Your task to perform on an android device: Open calendar and show me the fourth week of next month Image 0: 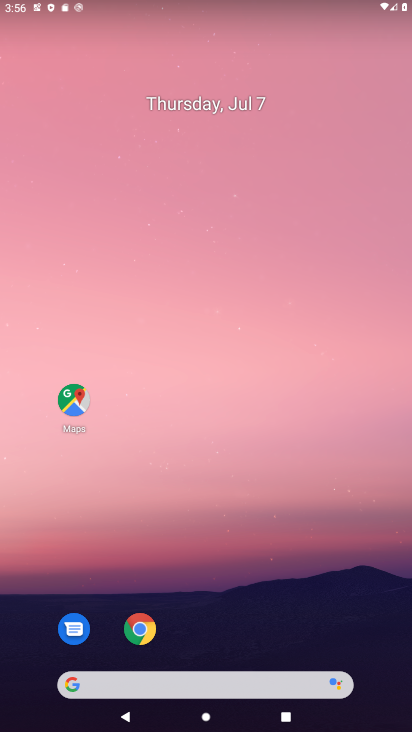
Step 0: drag from (196, 649) to (203, 249)
Your task to perform on an android device: Open calendar and show me the fourth week of next month Image 1: 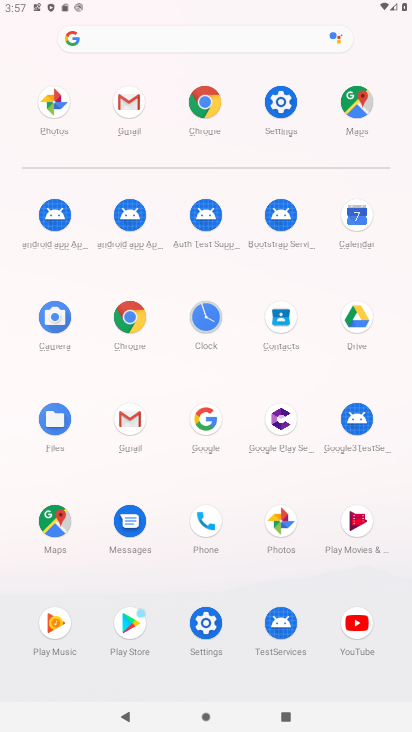
Step 1: click (355, 201)
Your task to perform on an android device: Open calendar and show me the fourth week of next month Image 2: 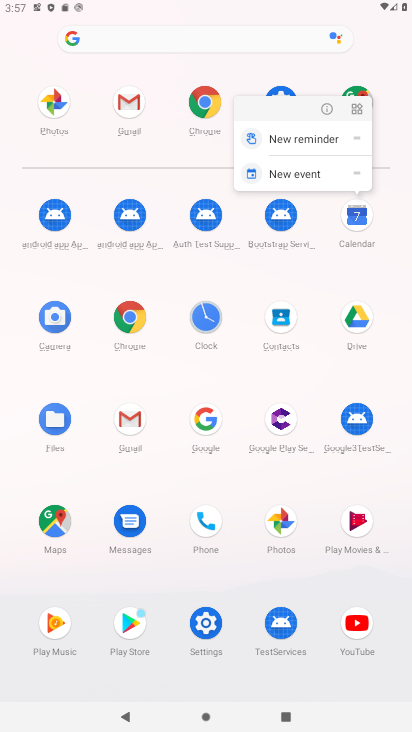
Step 2: click (355, 201)
Your task to perform on an android device: Open calendar and show me the fourth week of next month Image 3: 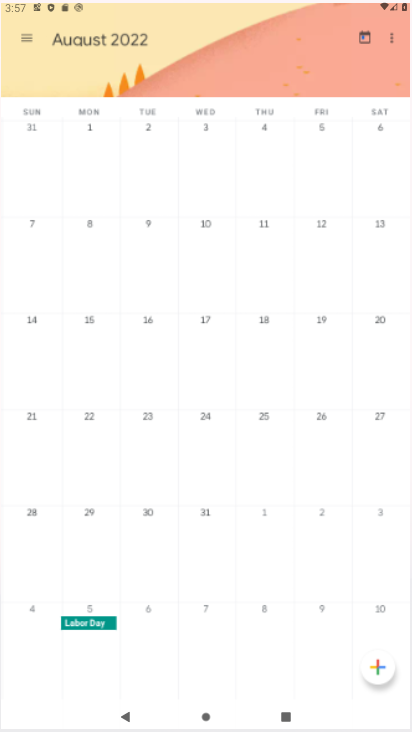
Step 3: click (355, 217)
Your task to perform on an android device: Open calendar and show me the fourth week of next month Image 4: 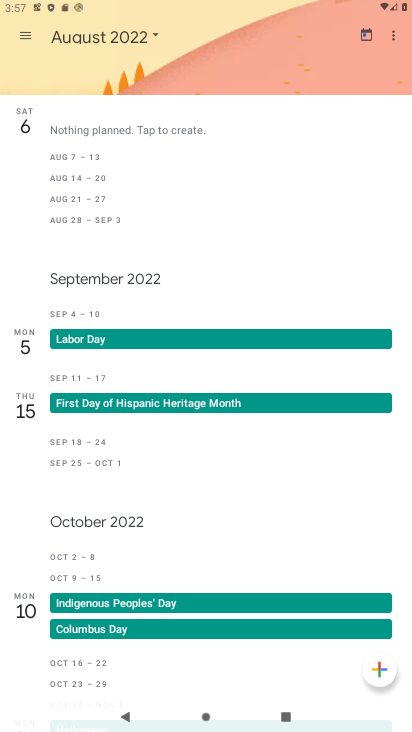
Step 4: drag from (21, 350) to (373, 326)
Your task to perform on an android device: Open calendar and show me the fourth week of next month Image 5: 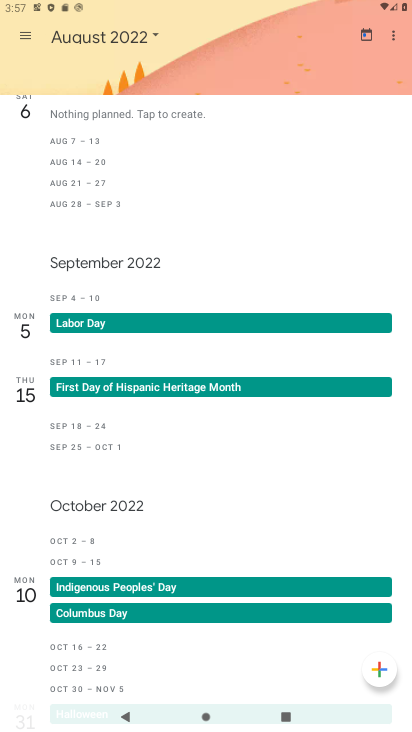
Step 5: click (15, 41)
Your task to perform on an android device: Open calendar and show me the fourth week of next month Image 6: 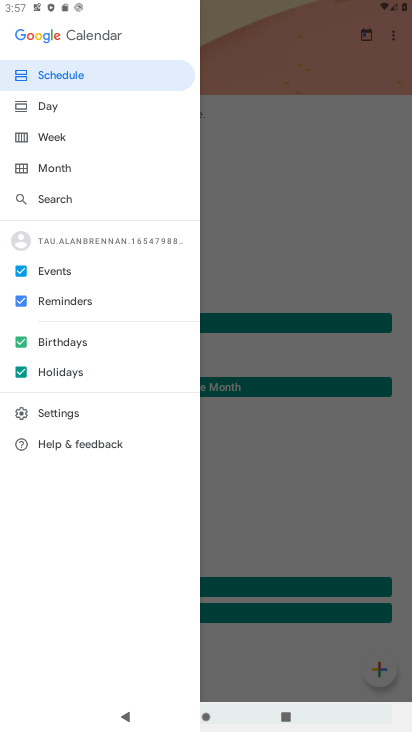
Step 6: click (46, 172)
Your task to perform on an android device: Open calendar and show me the fourth week of next month Image 7: 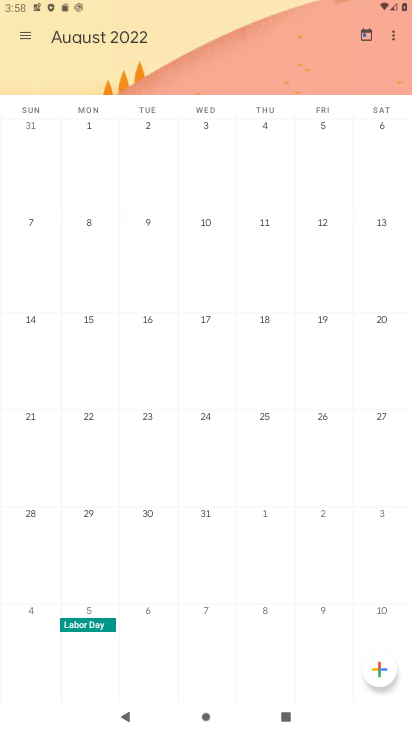
Step 7: task complete